Your task to perform on an android device: Open privacy settings Image 0: 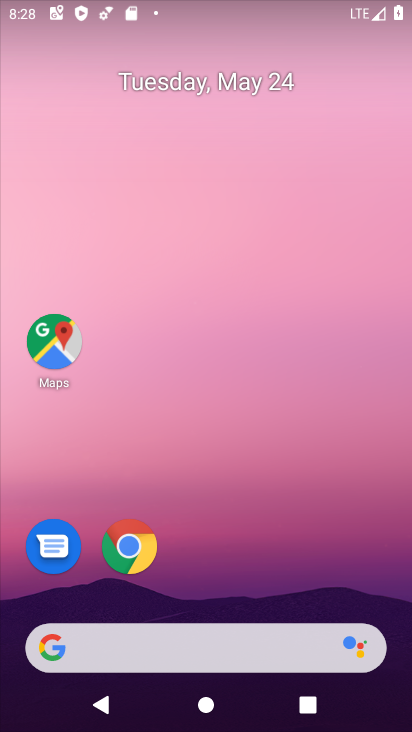
Step 0: drag from (236, 539) to (310, 0)
Your task to perform on an android device: Open privacy settings Image 1: 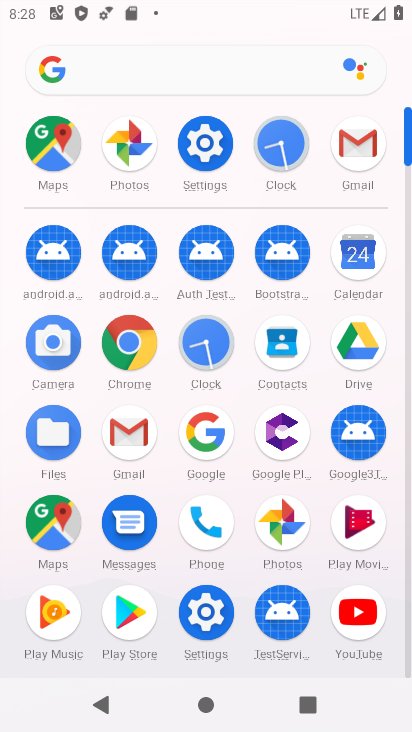
Step 1: click (210, 145)
Your task to perform on an android device: Open privacy settings Image 2: 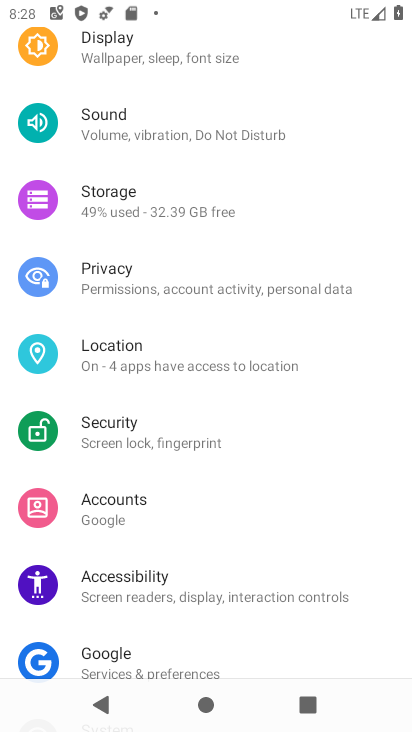
Step 2: click (206, 276)
Your task to perform on an android device: Open privacy settings Image 3: 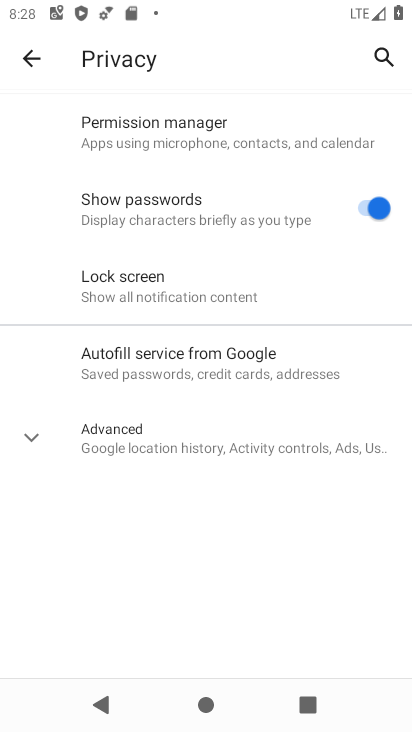
Step 3: task complete